Your task to perform on an android device: Search for vegetarian restaurants on Maps Image 0: 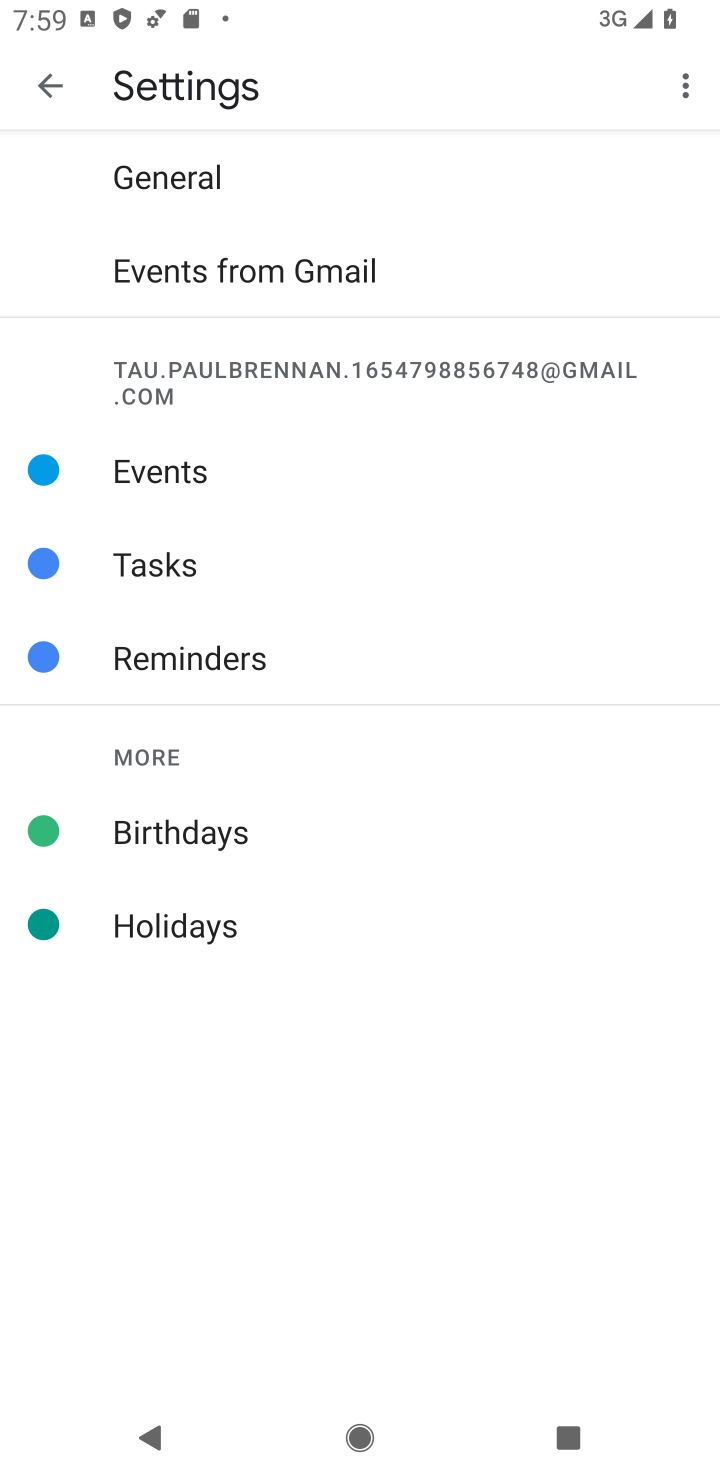
Step 0: press home button
Your task to perform on an android device: Search for vegetarian restaurants on Maps Image 1: 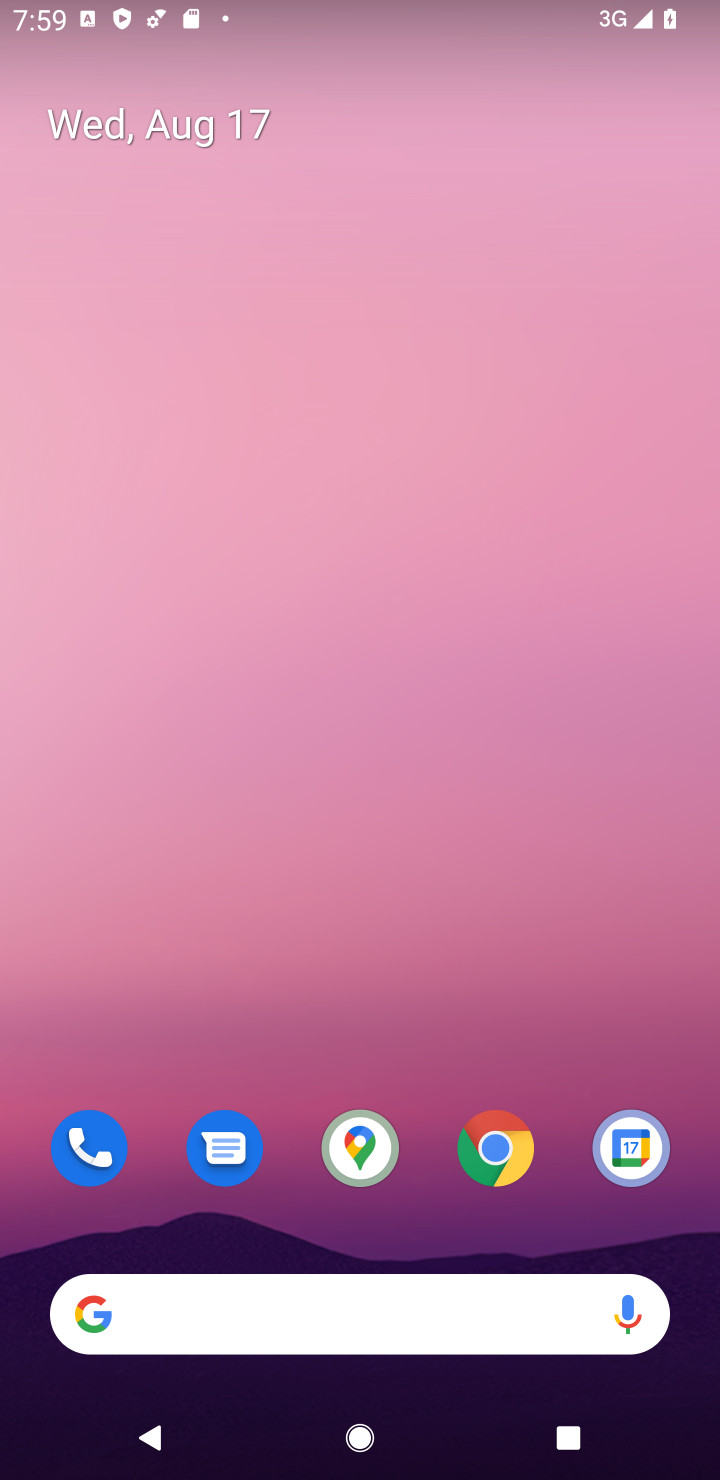
Step 1: click (365, 1147)
Your task to perform on an android device: Search for vegetarian restaurants on Maps Image 2: 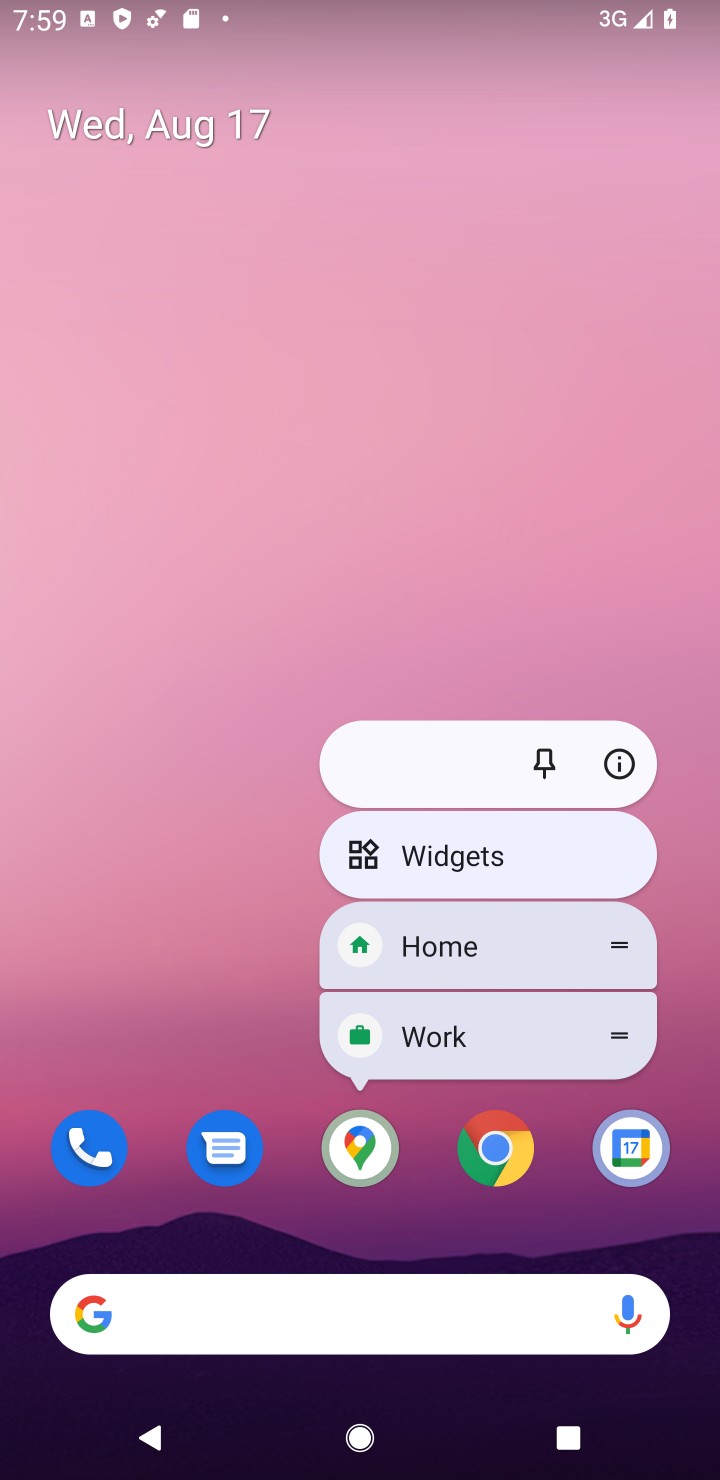
Step 2: click (365, 1147)
Your task to perform on an android device: Search for vegetarian restaurants on Maps Image 3: 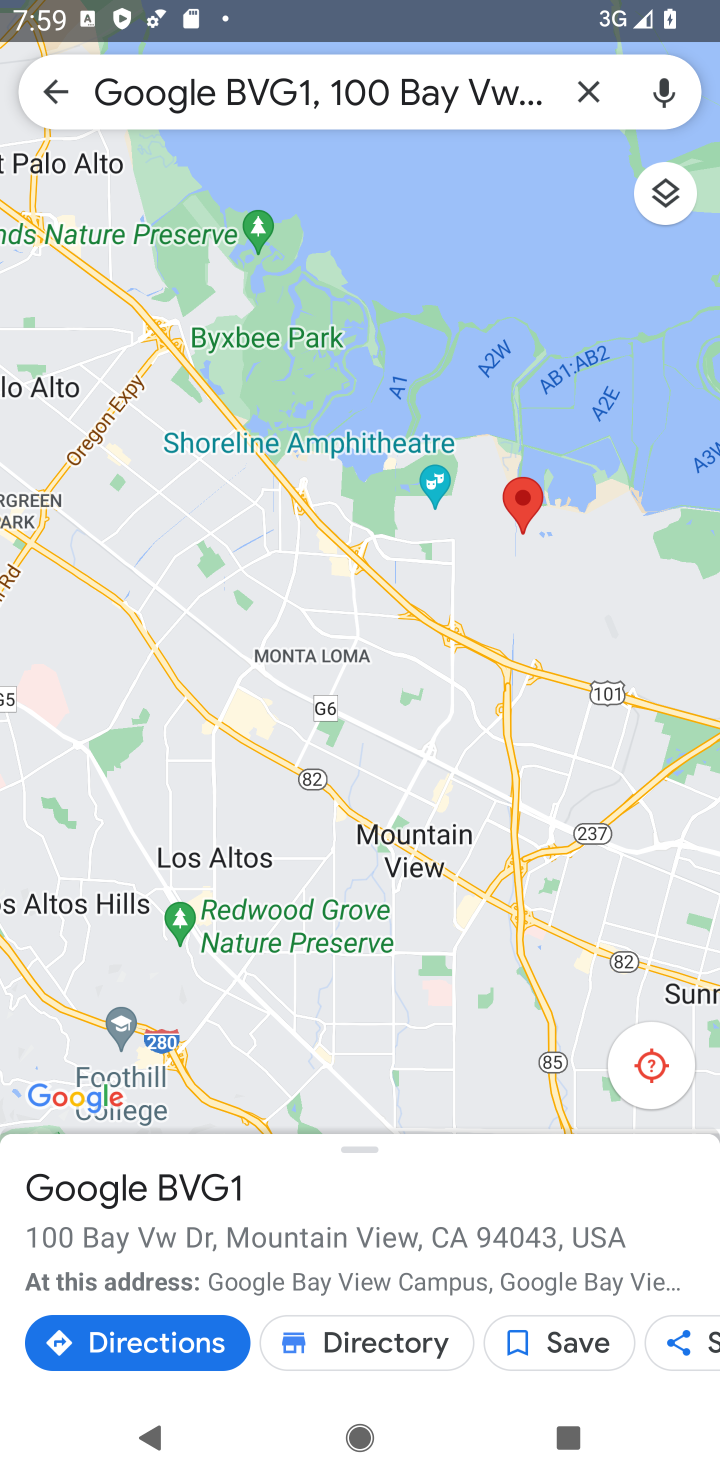
Step 3: click (592, 88)
Your task to perform on an android device: Search for vegetarian restaurants on Maps Image 4: 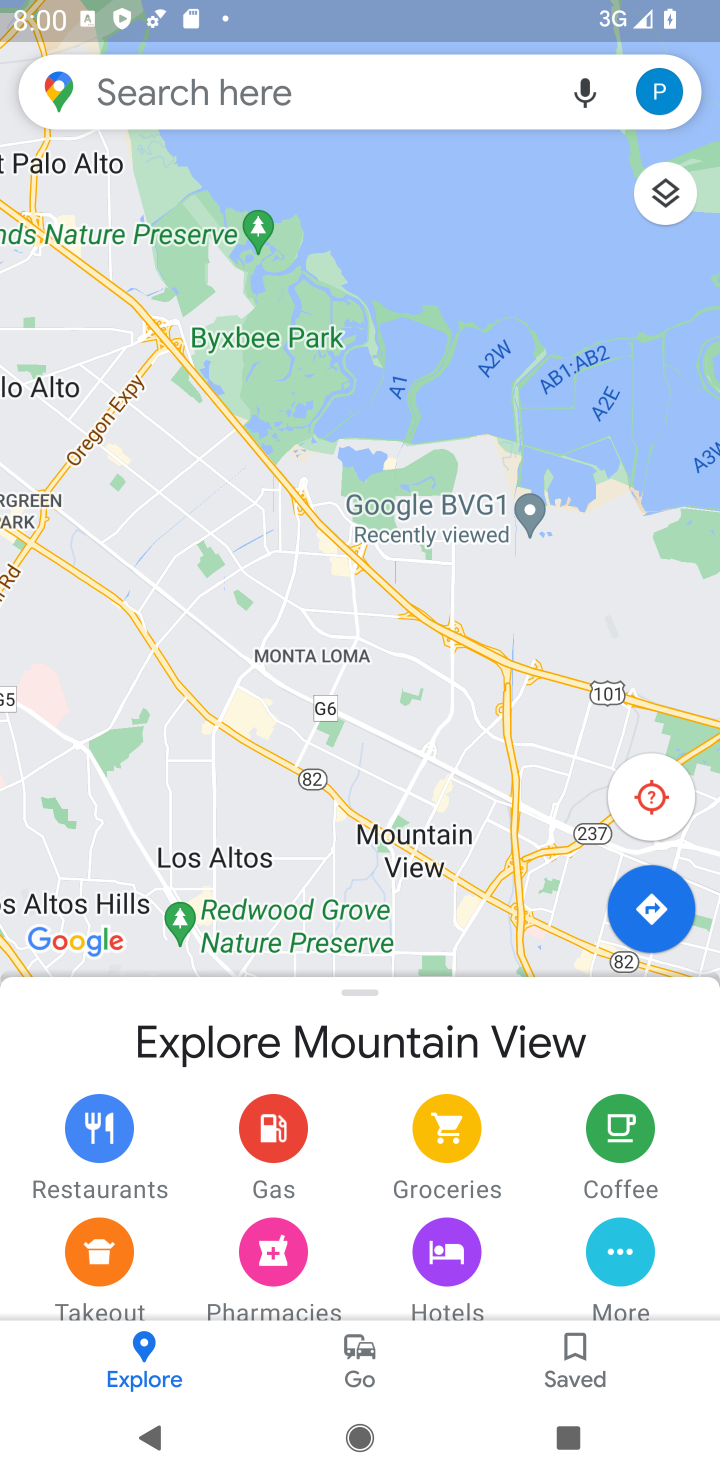
Step 4: click (263, 78)
Your task to perform on an android device: Search for vegetarian restaurants on Maps Image 5: 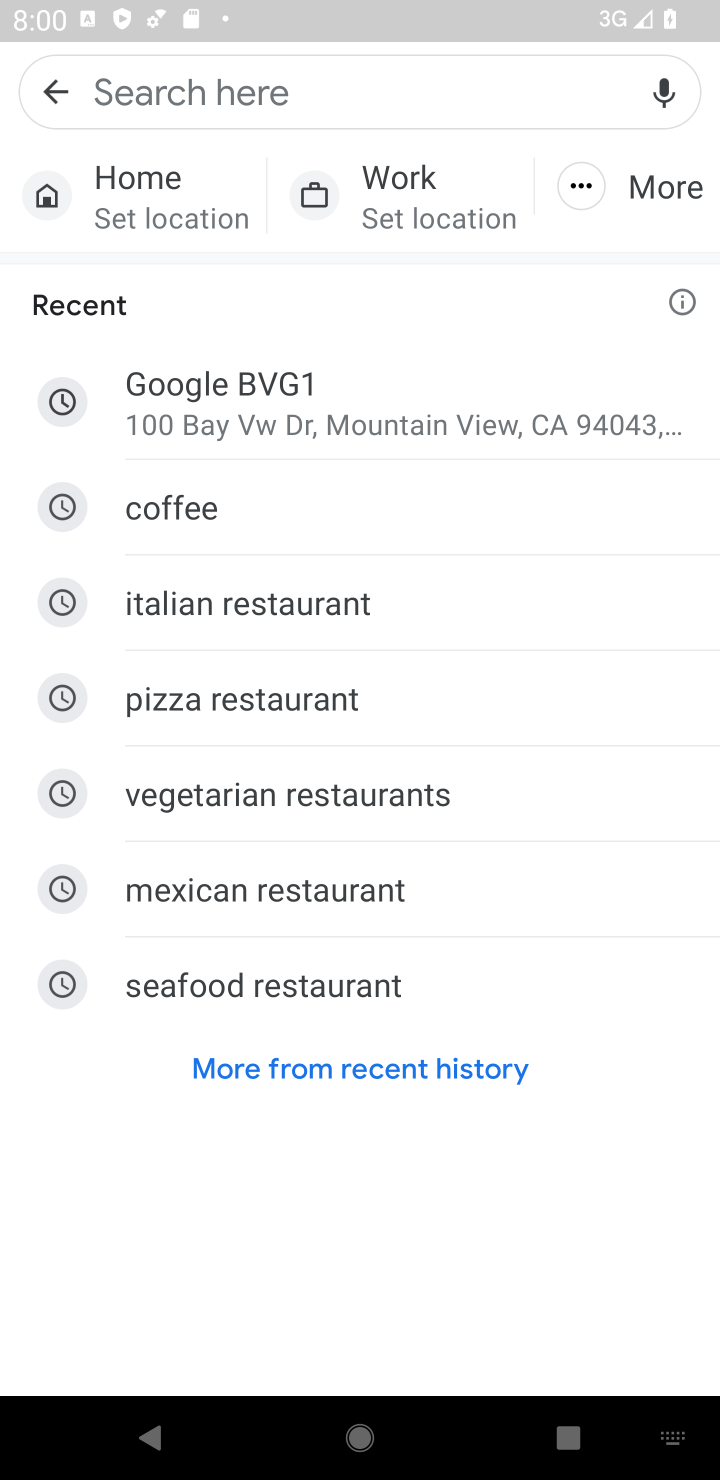
Step 5: type "vegetarian restaurants"
Your task to perform on an android device: Search for vegetarian restaurants on Maps Image 6: 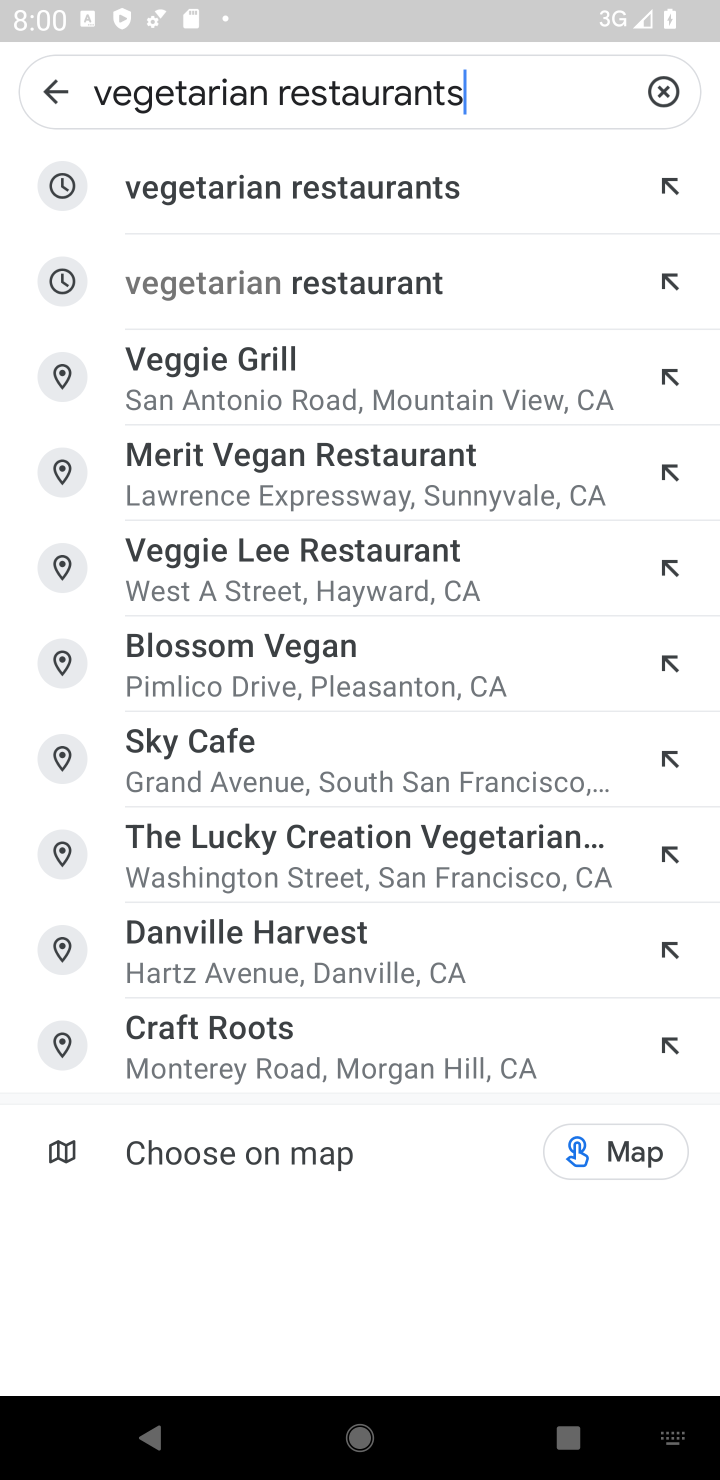
Step 6: click (228, 171)
Your task to perform on an android device: Search for vegetarian restaurants on Maps Image 7: 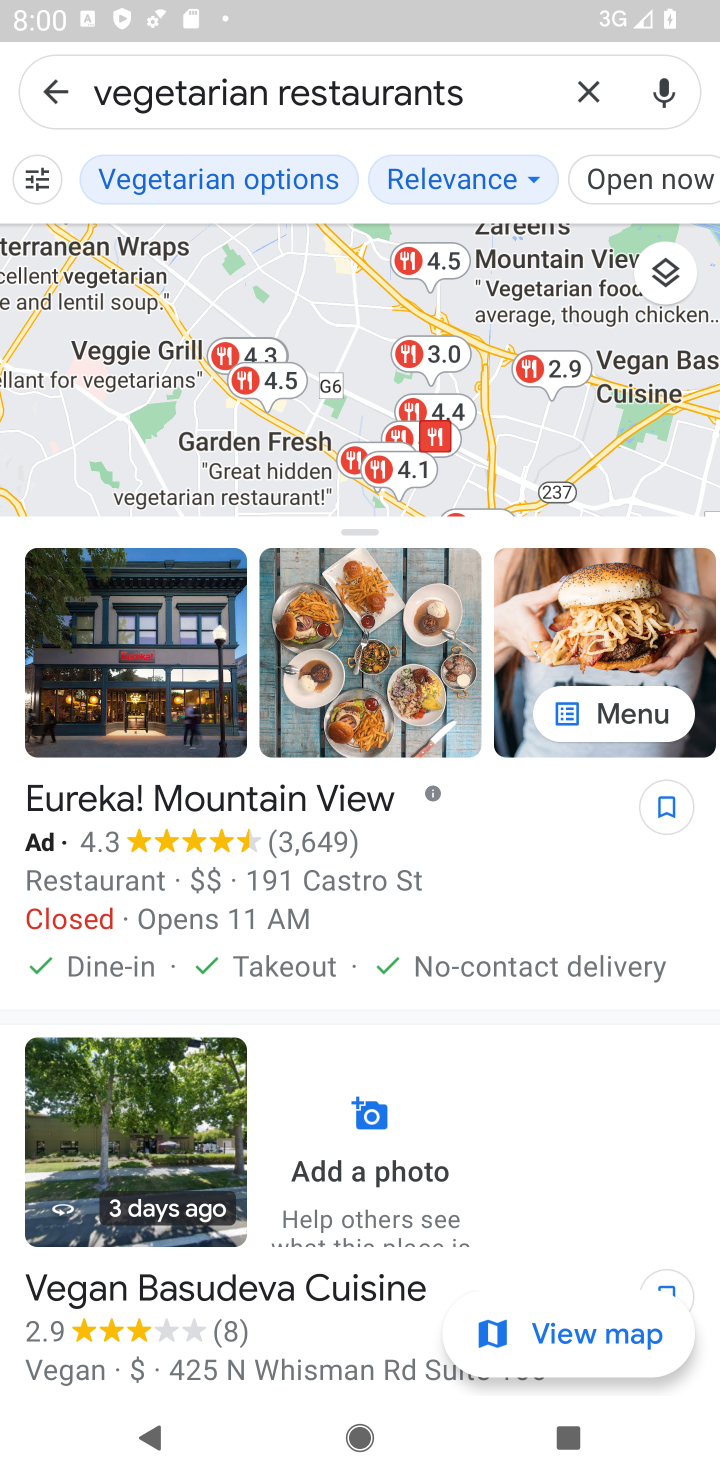
Step 7: click (423, 236)
Your task to perform on an android device: Search for vegetarian restaurants on Maps Image 8: 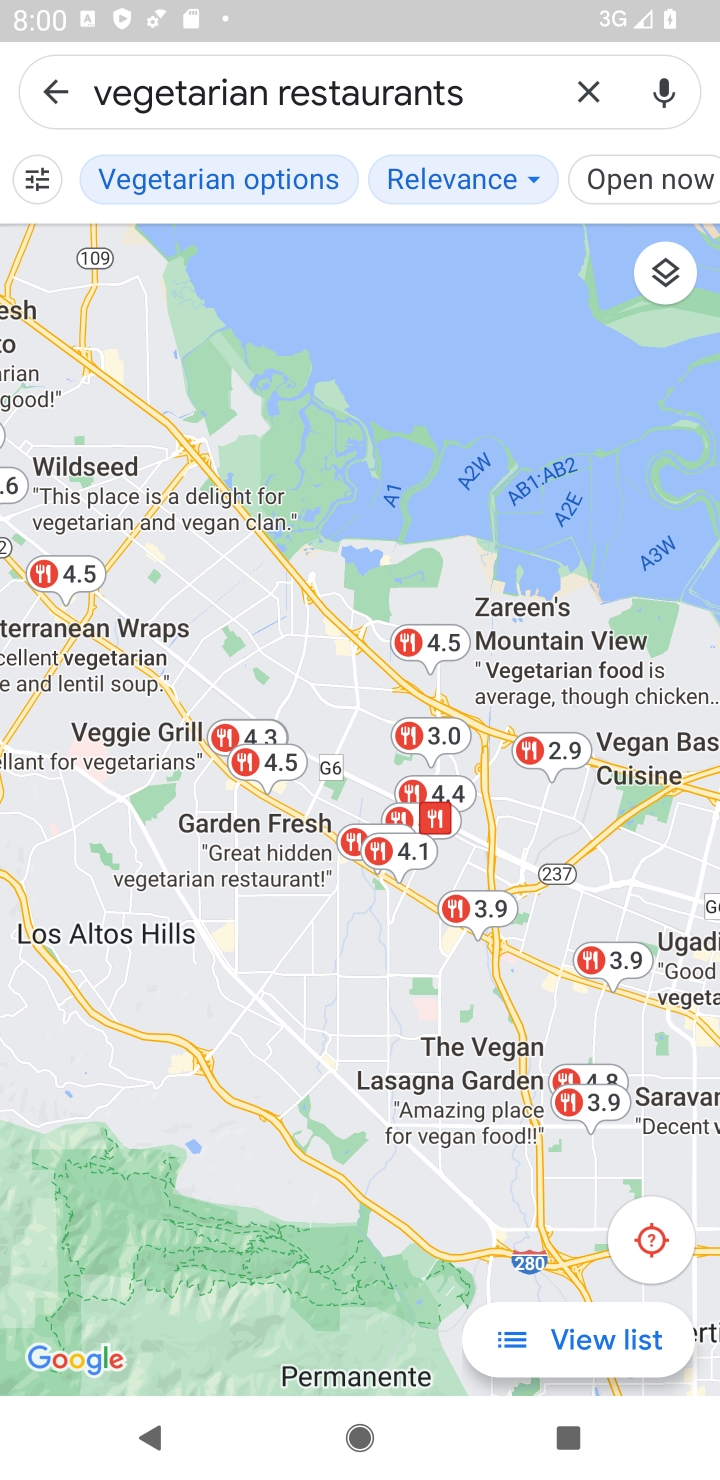
Step 8: click (603, 1338)
Your task to perform on an android device: Search for vegetarian restaurants on Maps Image 9: 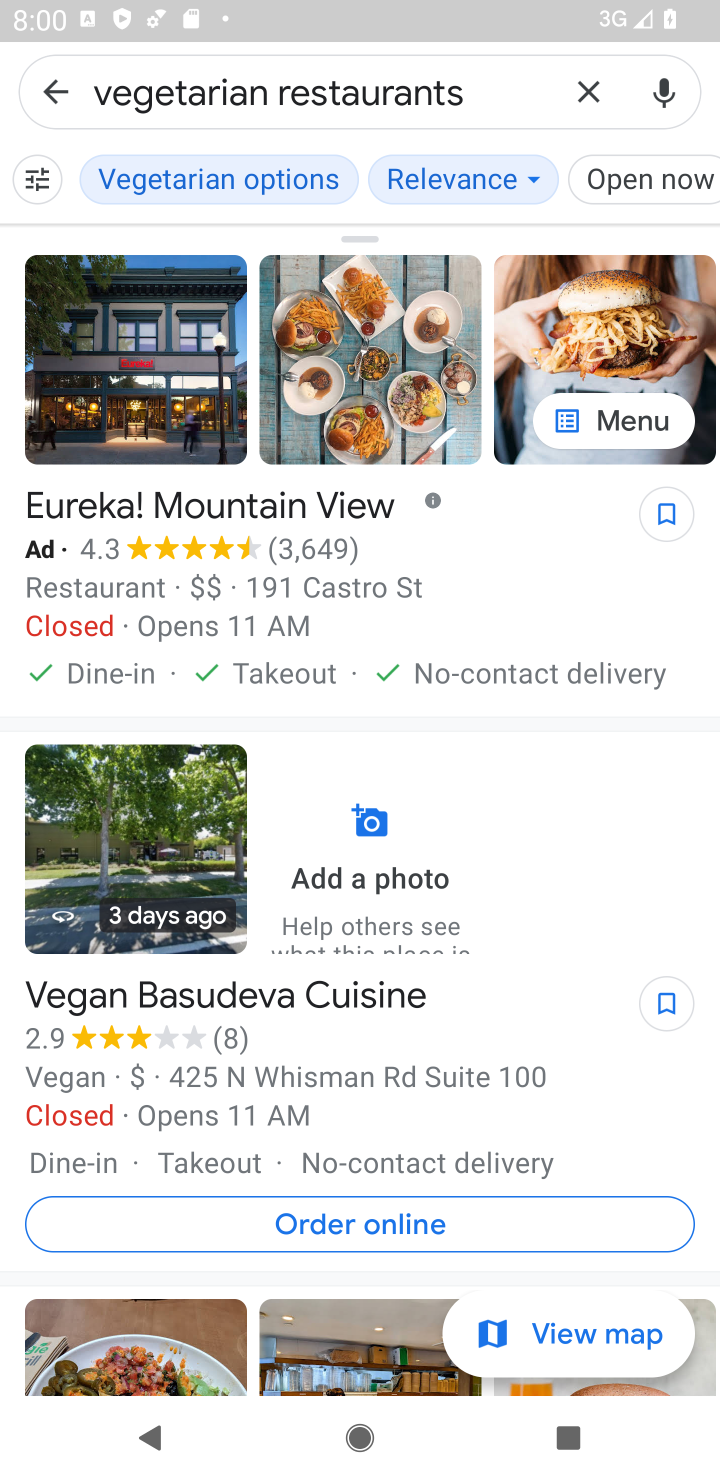
Step 9: task complete